Your task to perform on an android device: Toggle the flashlight Image 0: 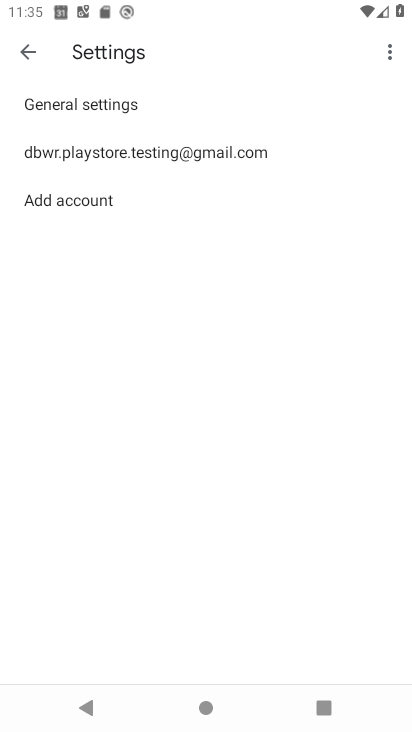
Step 0: press home button
Your task to perform on an android device: Toggle the flashlight Image 1: 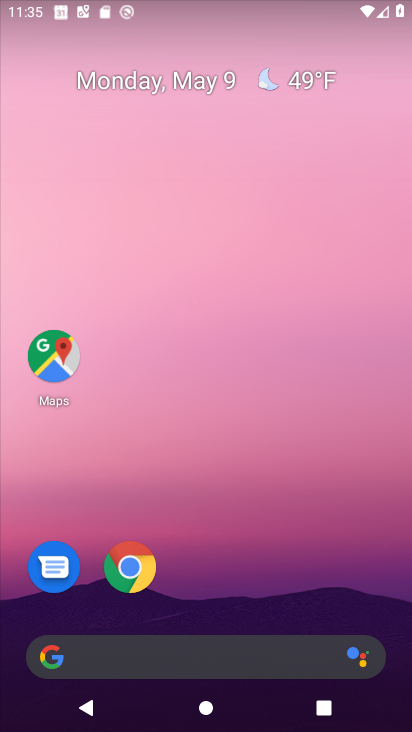
Step 1: drag from (209, 5) to (223, 425)
Your task to perform on an android device: Toggle the flashlight Image 2: 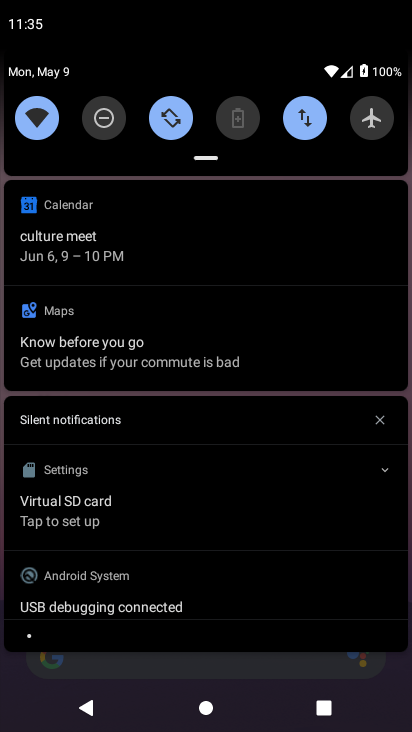
Step 2: drag from (162, 119) to (182, 468)
Your task to perform on an android device: Toggle the flashlight Image 3: 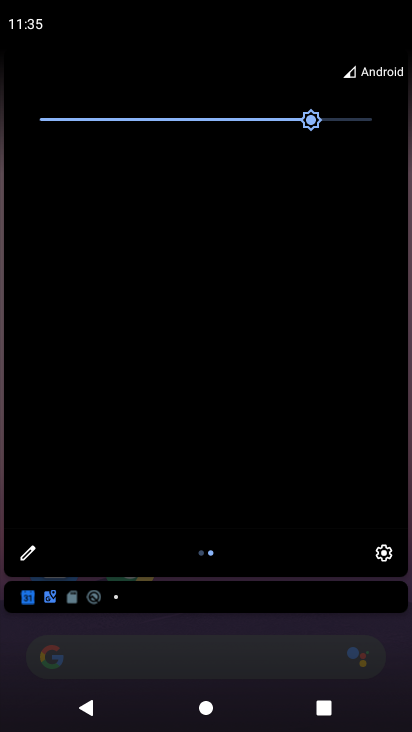
Step 3: drag from (131, 320) to (323, 327)
Your task to perform on an android device: Toggle the flashlight Image 4: 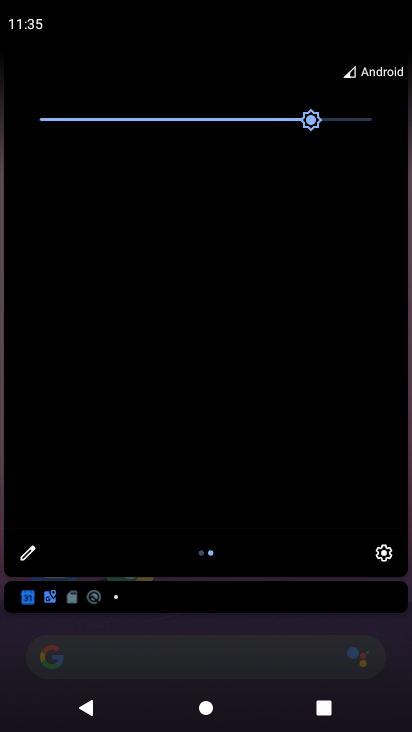
Step 4: drag from (182, 389) to (398, 439)
Your task to perform on an android device: Toggle the flashlight Image 5: 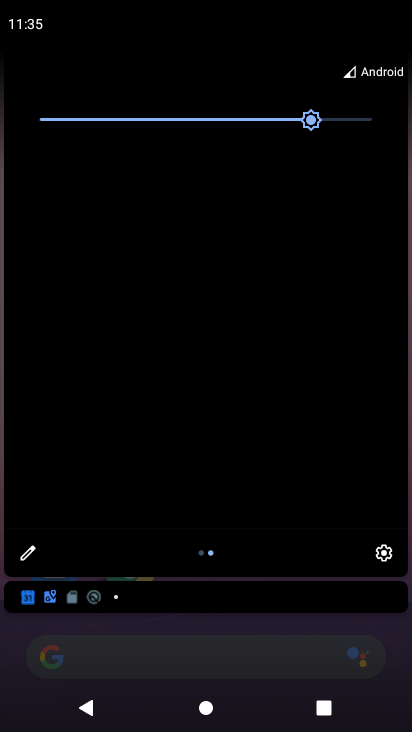
Step 5: drag from (181, 403) to (398, 449)
Your task to perform on an android device: Toggle the flashlight Image 6: 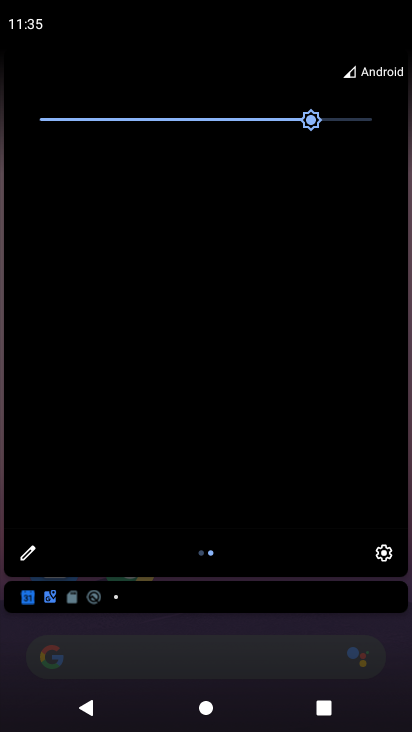
Step 6: drag from (39, 428) to (389, 493)
Your task to perform on an android device: Toggle the flashlight Image 7: 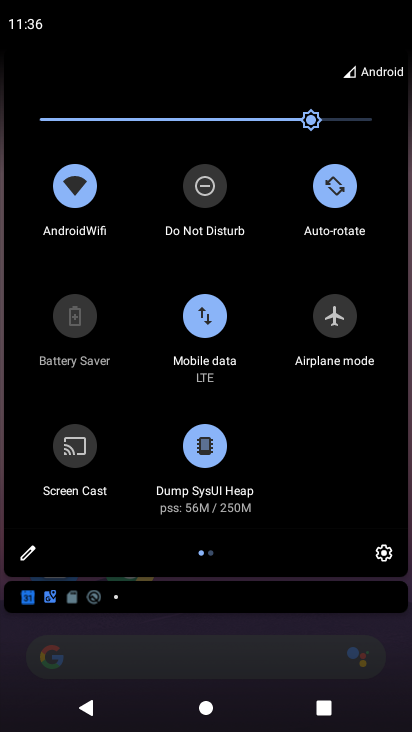
Step 7: click (22, 553)
Your task to perform on an android device: Toggle the flashlight Image 8: 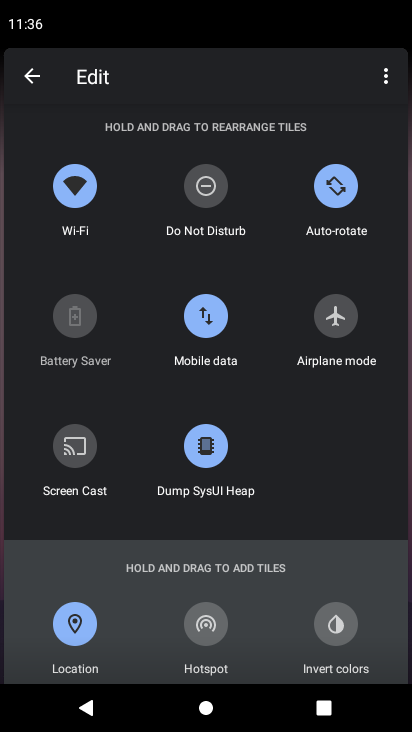
Step 8: task complete